Your task to perform on an android device: What's on my calendar tomorrow? Image 0: 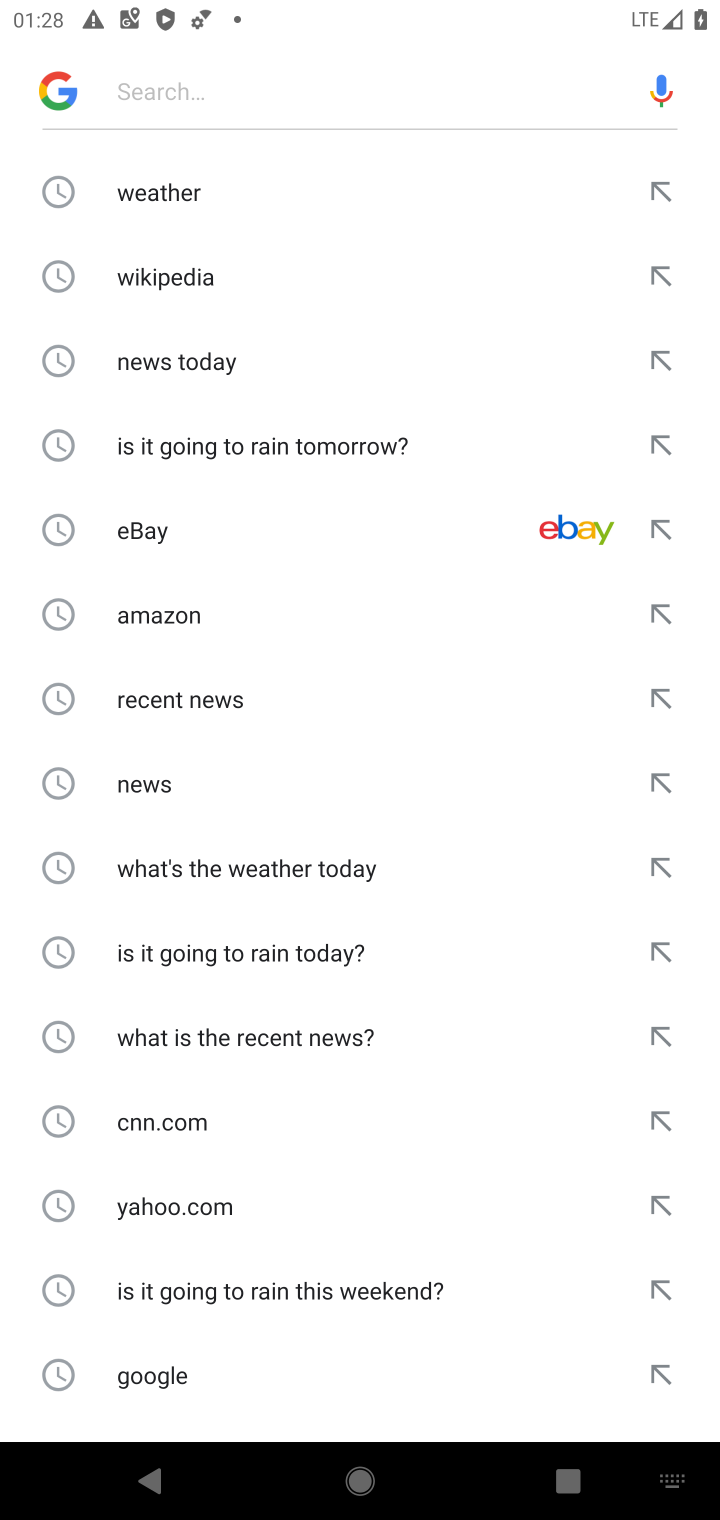
Step 0: press home button
Your task to perform on an android device: What's on my calendar tomorrow? Image 1: 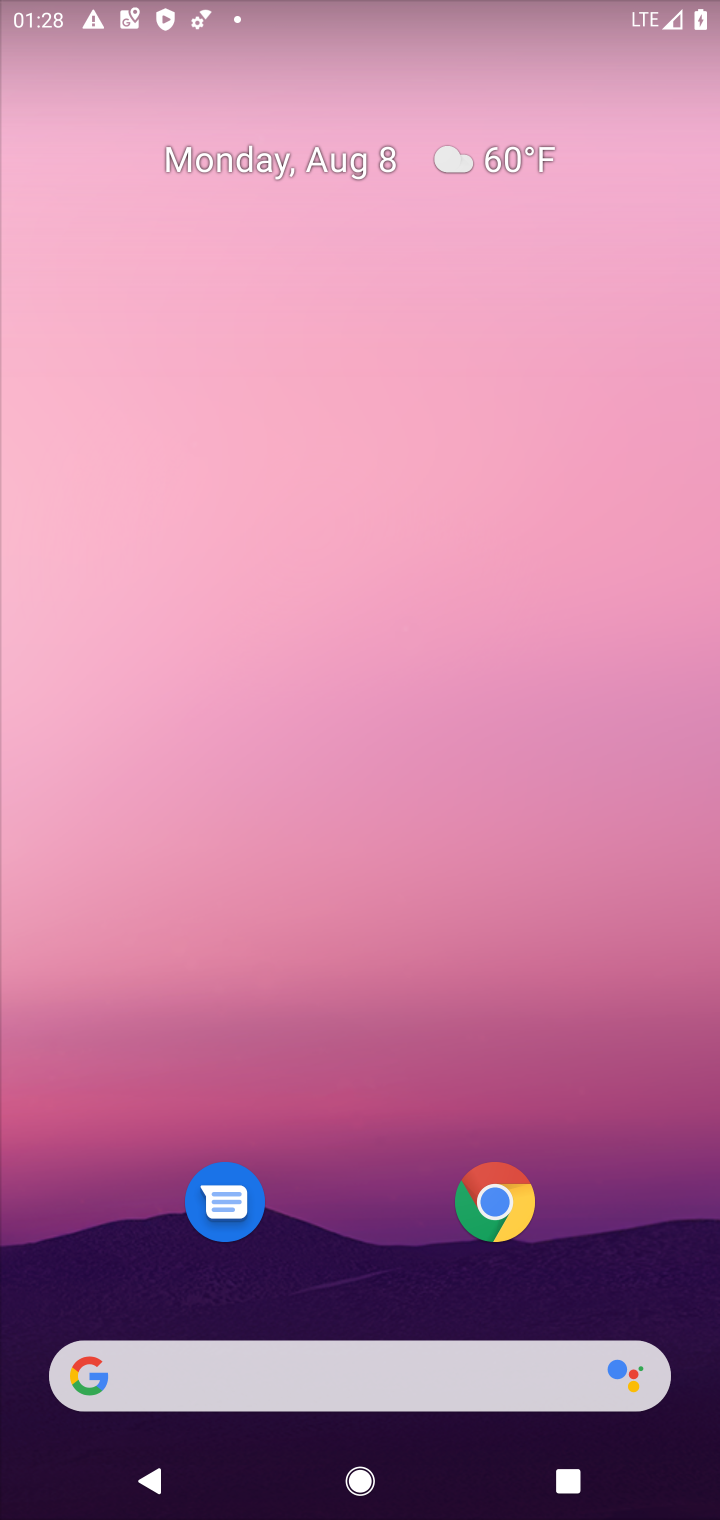
Step 1: drag from (143, 172) to (175, 102)
Your task to perform on an android device: What's on my calendar tomorrow? Image 2: 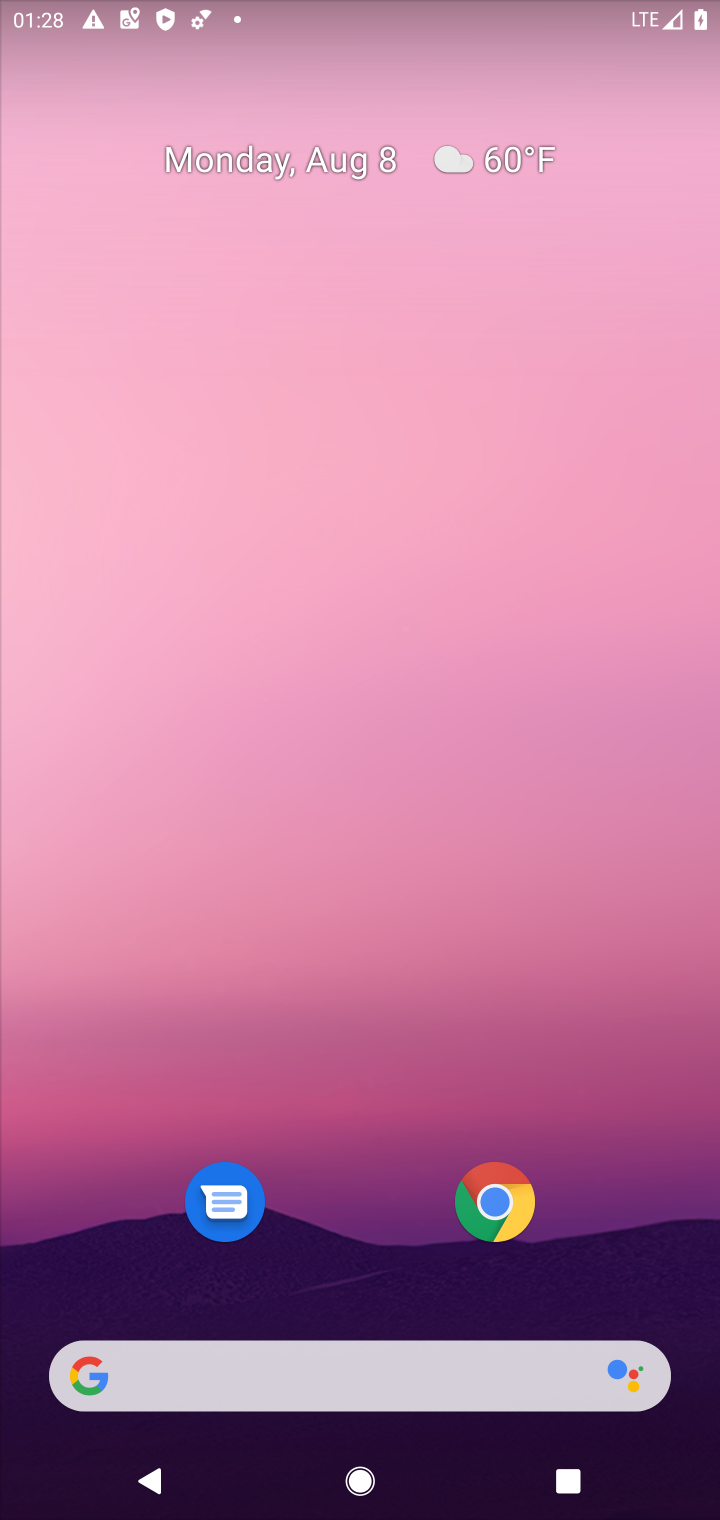
Step 2: drag from (268, 491) to (307, 226)
Your task to perform on an android device: What's on my calendar tomorrow? Image 3: 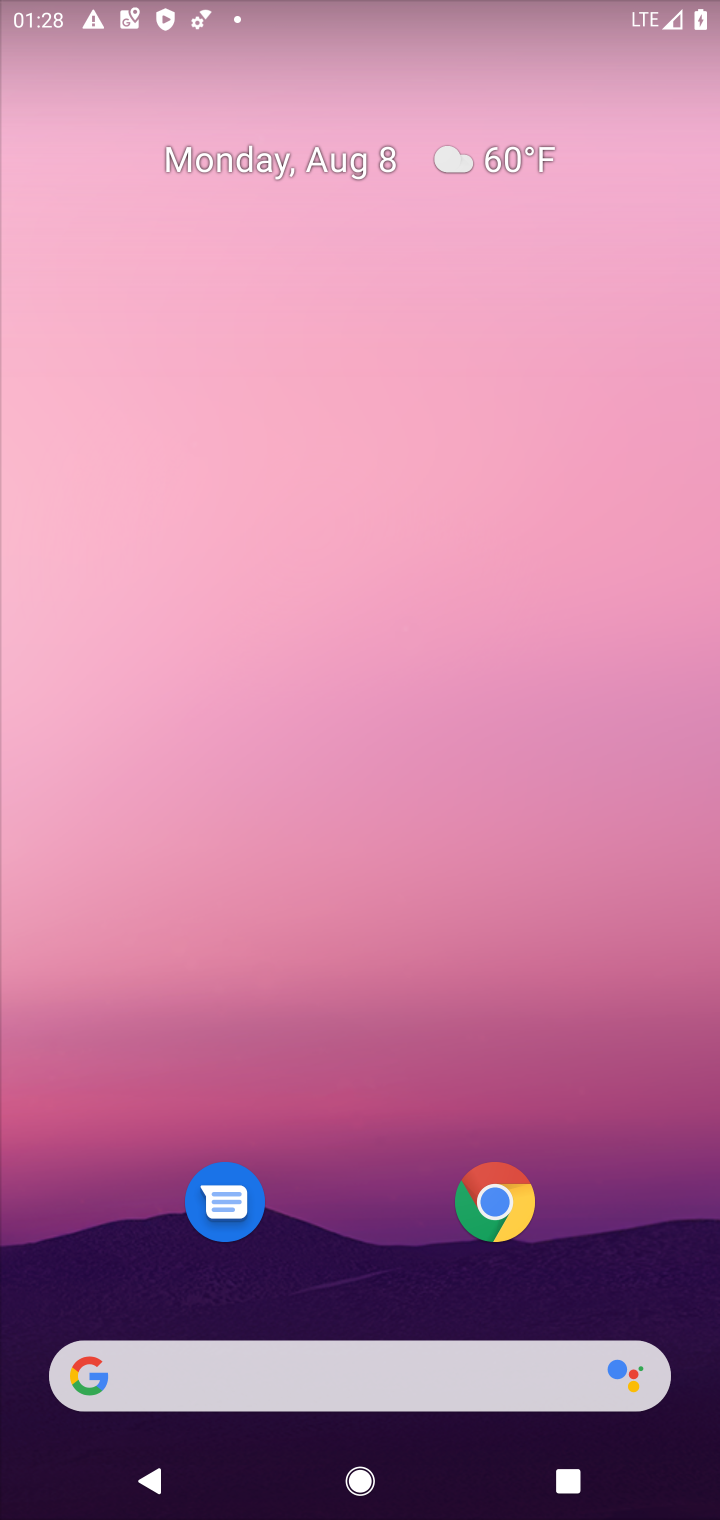
Step 3: click (328, 60)
Your task to perform on an android device: What's on my calendar tomorrow? Image 4: 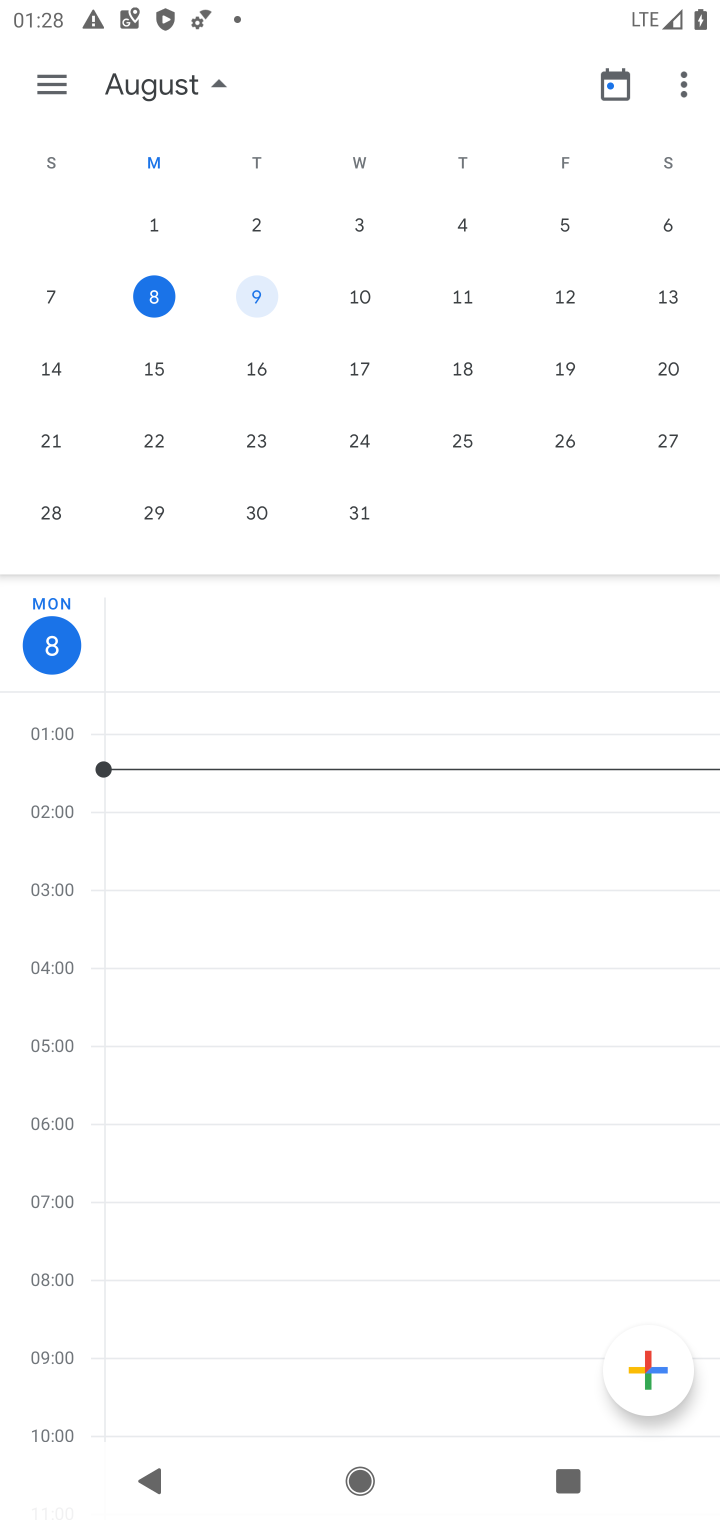
Step 4: drag from (366, 1237) to (470, 334)
Your task to perform on an android device: What's on my calendar tomorrow? Image 5: 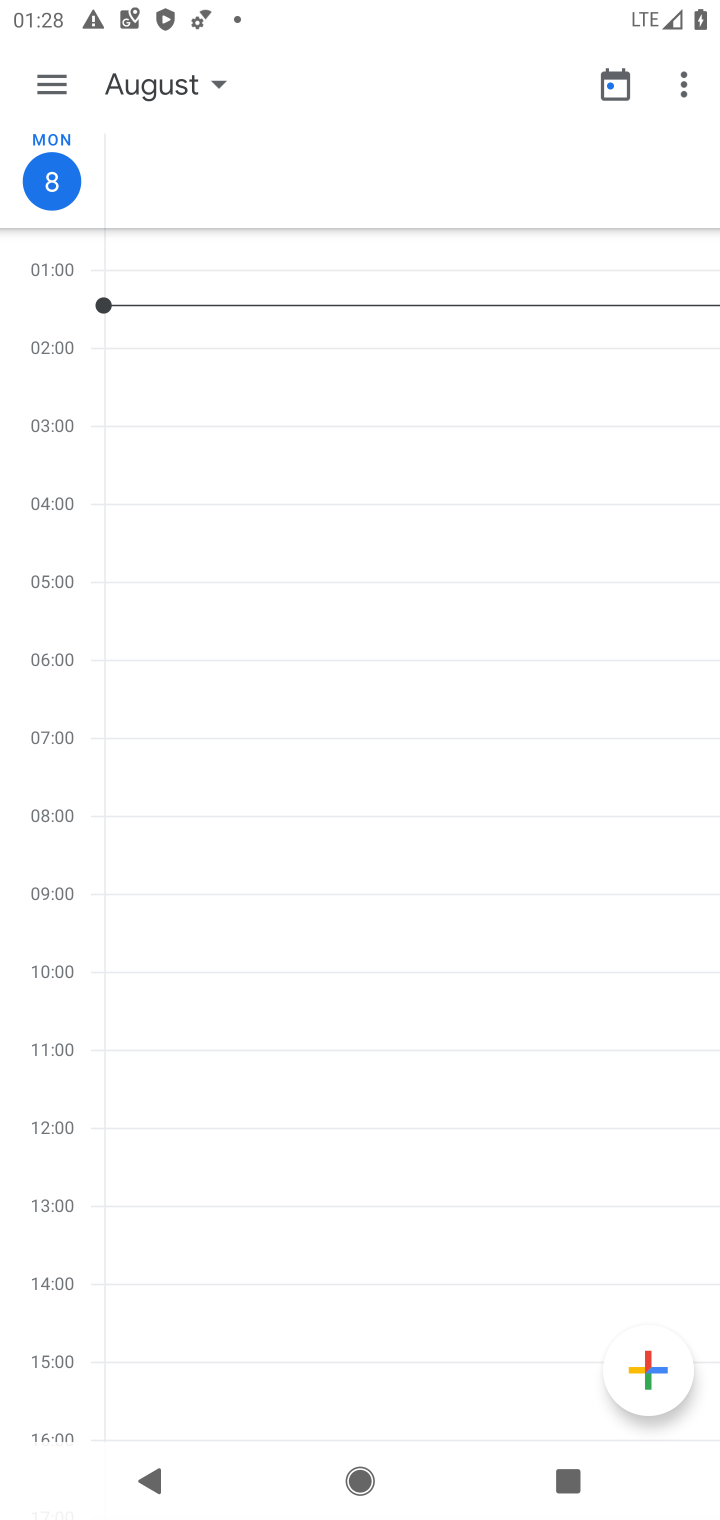
Step 5: click (142, 103)
Your task to perform on an android device: What's on my calendar tomorrow? Image 6: 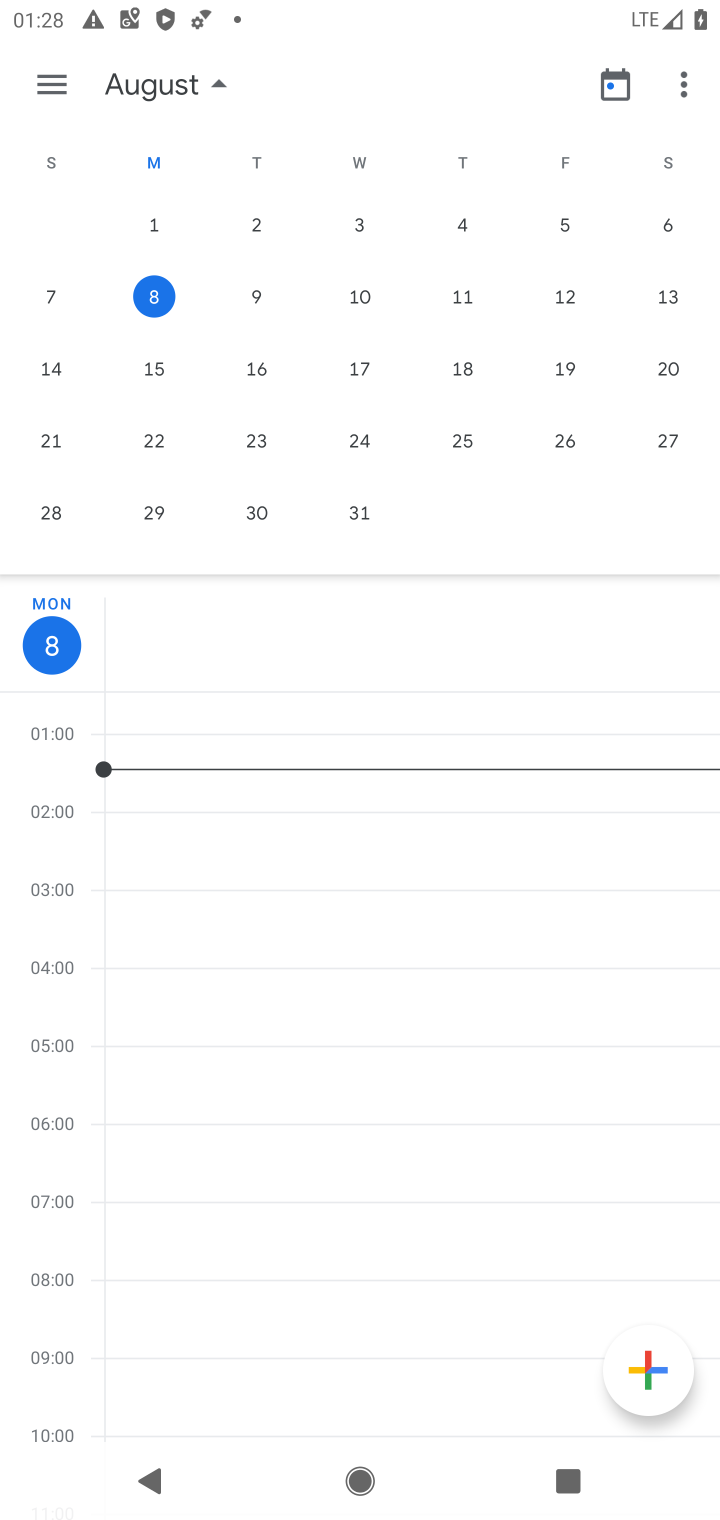
Step 6: click (260, 296)
Your task to perform on an android device: What's on my calendar tomorrow? Image 7: 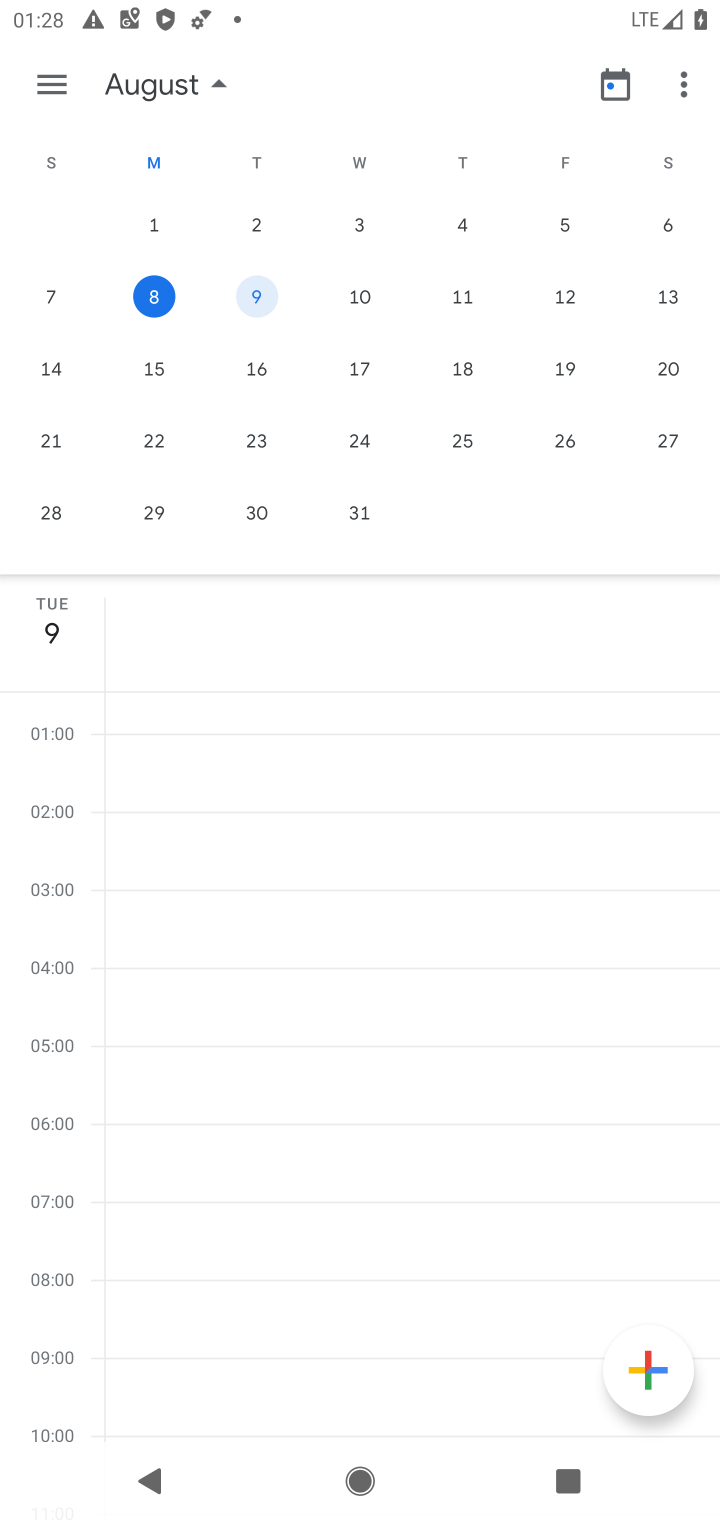
Step 7: task complete